Your task to perform on an android device: Show me popular games on the Play Store Image 0: 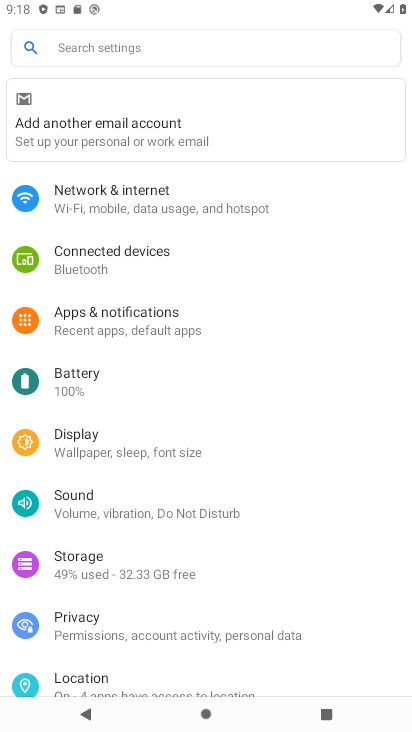
Step 0: press home button
Your task to perform on an android device: Show me popular games on the Play Store Image 1: 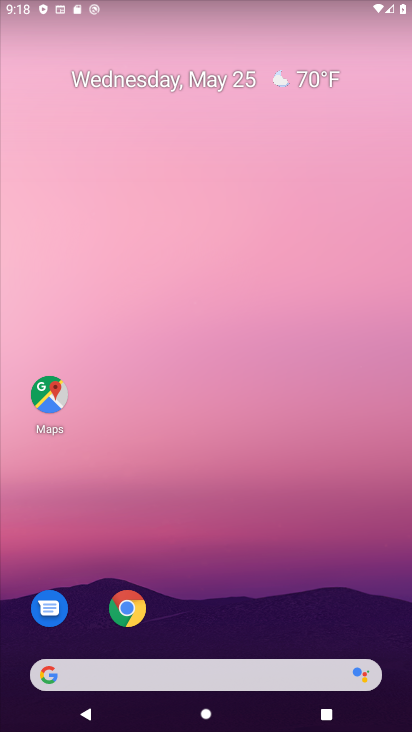
Step 1: drag from (295, 562) to (162, 1)
Your task to perform on an android device: Show me popular games on the Play Store Image 2: 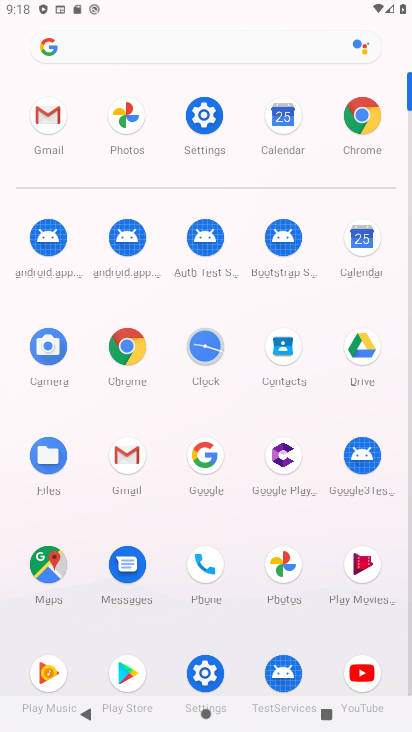
Step 2: click (133, 673)
Your task to perform on an android device: Show me popular games on the Play Store Image 3: 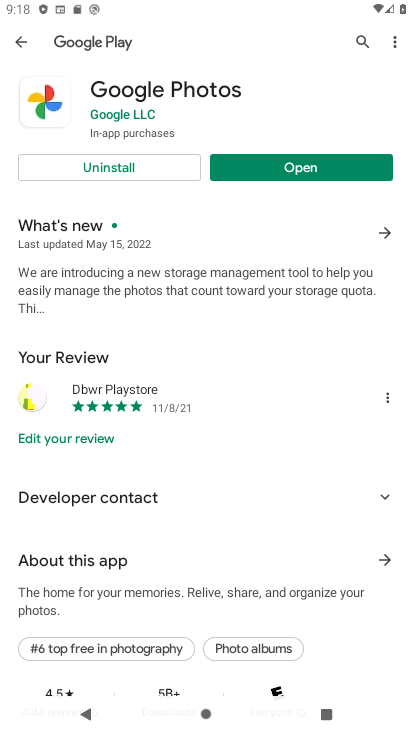
Step 3: click (20, 45)
Your task to perform on an android device: Show me popular games on the Play Store Image 4: 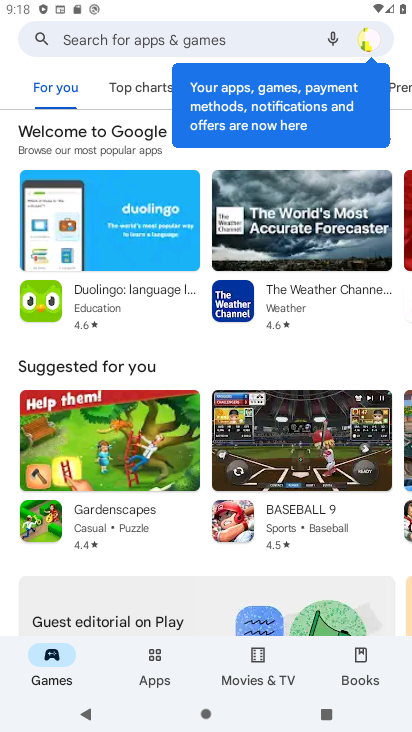
Step 4: click (114, 93)
Your task to perform on an android device: Show me popular games on the Play Store Image 5: 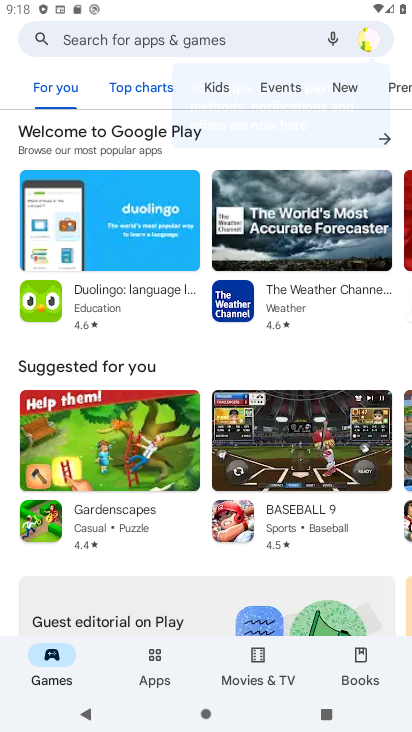
Step 5: click (128, 87)
Your task to perform on an android device: Show me popular games on the Play Store Image 6: 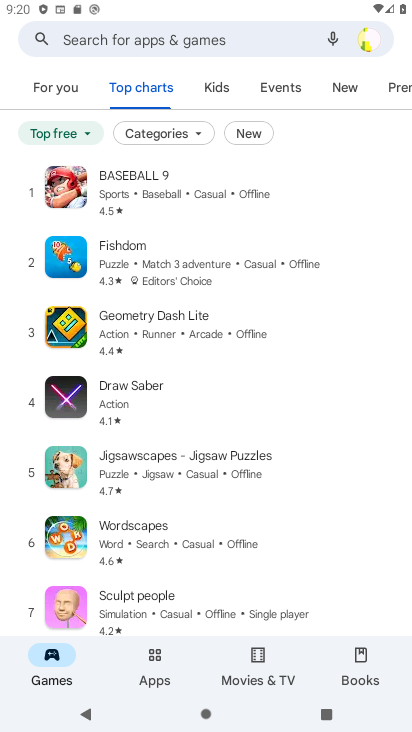
Step 6: task complete